Your task to perform on an android device: Show me popular games on the Play Store Image 0: 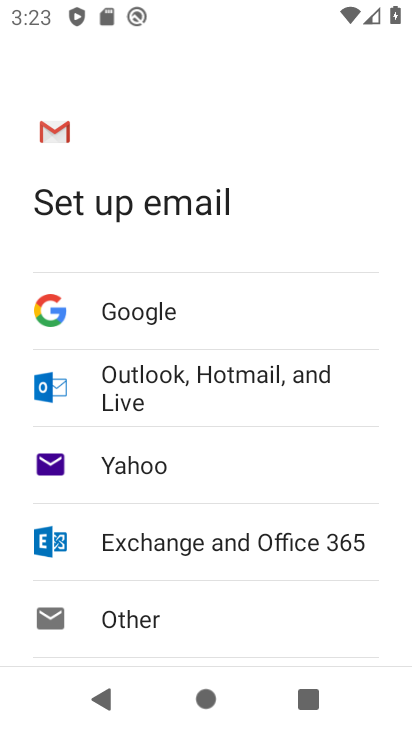
Step 0: press back button
Your task to perform on an android device: Show me popular games on the Play Store Image 1: 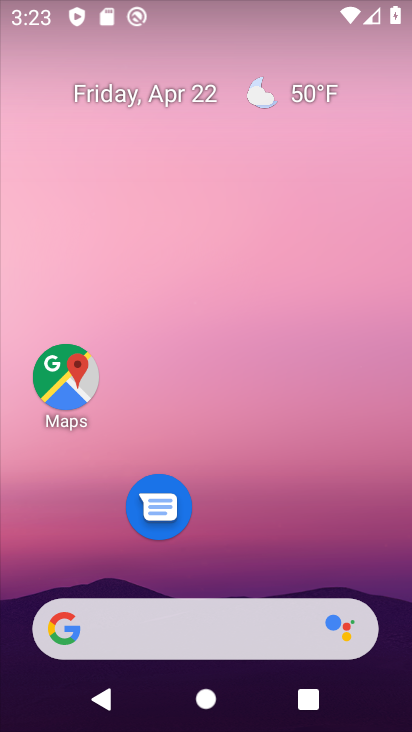
Step 1: drag from (224, 493) to (255, 123)
Your task to perform on an android device: Show me popular games on the Play Store Image 2: 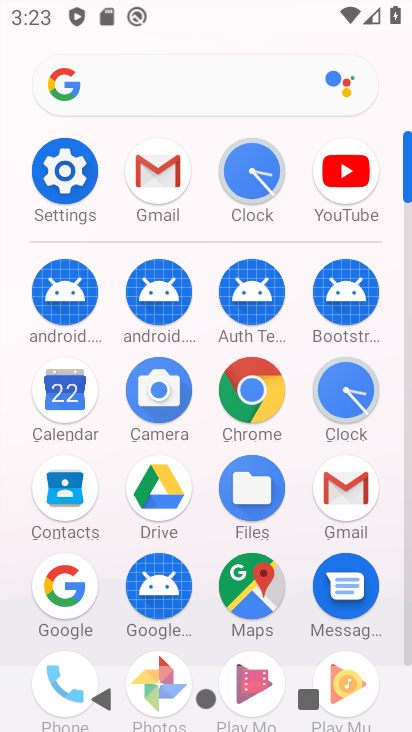
Step 2: drag from (188, 512) to (268, 123)
Your task to perform on an android device: Show me popular games on the Play Store Image 3: 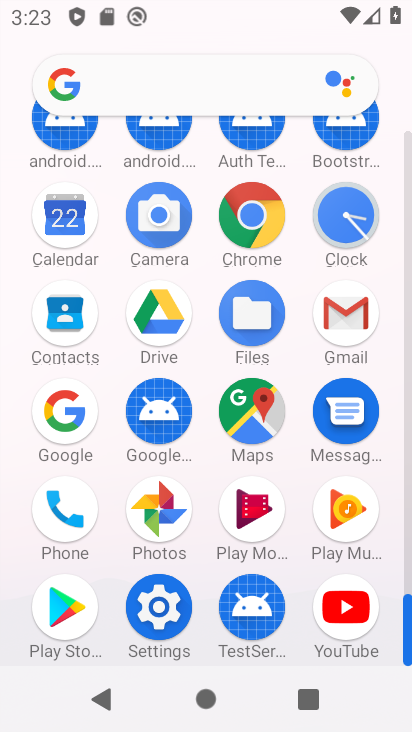
Step 3: click (63, 603)
Your task to perform on an android device: Show me popular games on the Play Store Image 4: 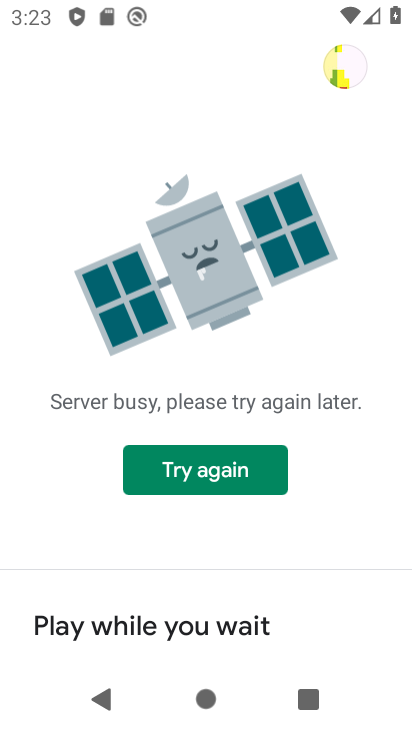
Step 4: click (168, 467)
Your task to perform on an android device: Show me popular games on the Play Store Image 5: 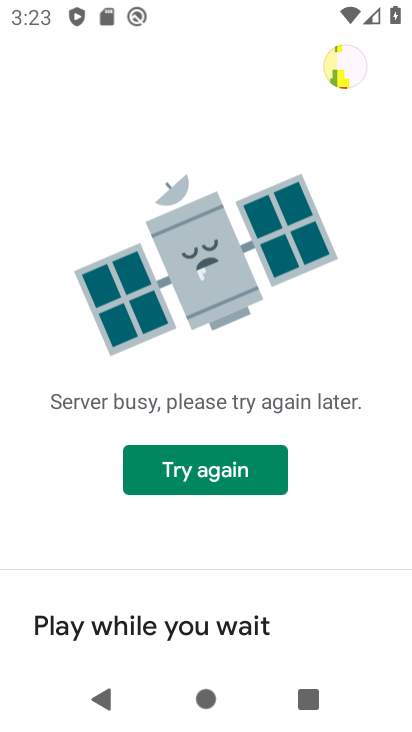
Step 5: task complete